Your task to perform on an android device: What's on my calendar tomorrow? Image 0: 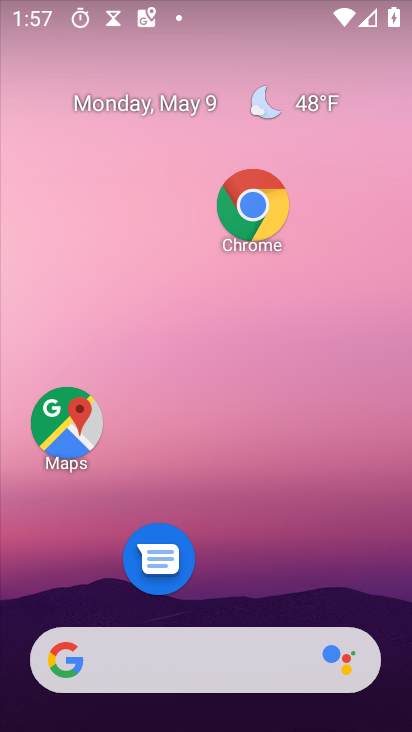
Step 0: drag from (272, 496) to (292, 285)
Your task to perform on an android device: What's on my calendar tomorrow? Image 1: 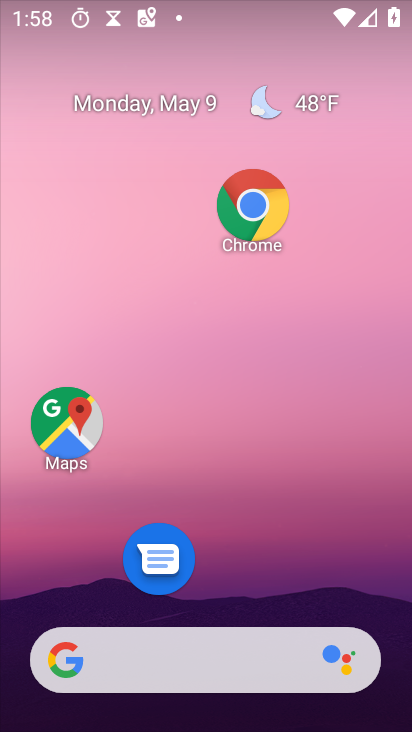
Step 1: drag from (280, 580) to (334, 182)
Your task to perform on an android device: What's on my calendar tomorrow? Image 2: 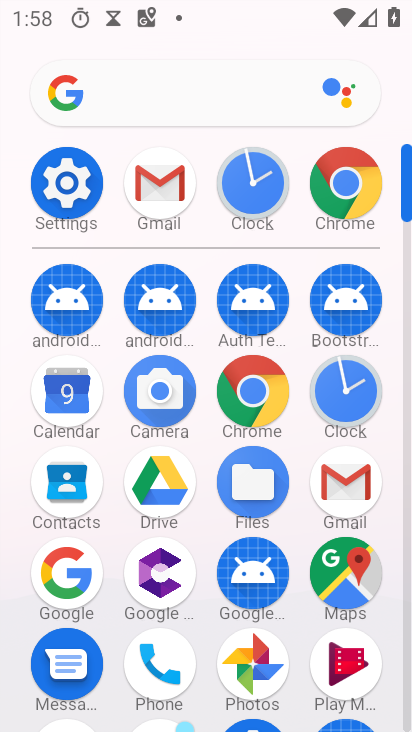
Step 2: click (63, 382)
Your task to perform on an android device: What's on my calendar tomorrow? Image 3: 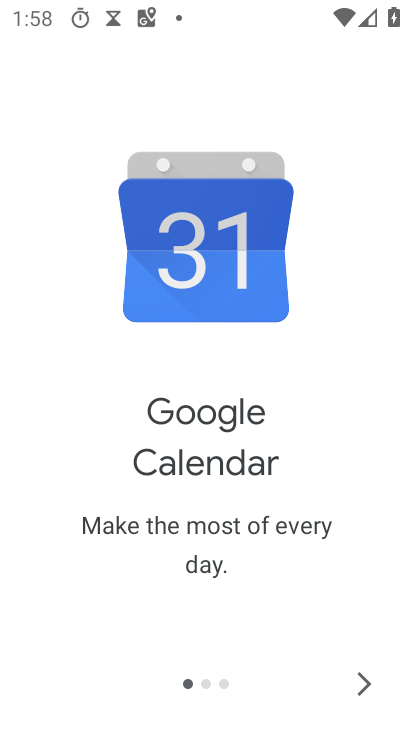
Step 3: click (359, 682)
Your task to perform on an android device: What's on my calendar tomorrow? Image 4: 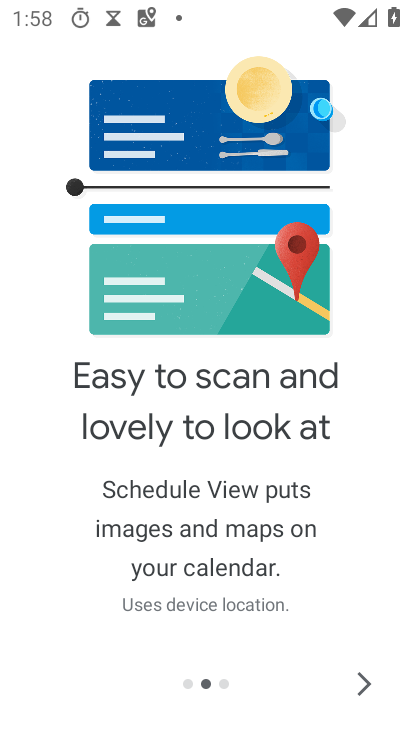
Step 4: click (358, 681)
Your task to perform on an android device: What's on my calendar tomorrow? Image 5: 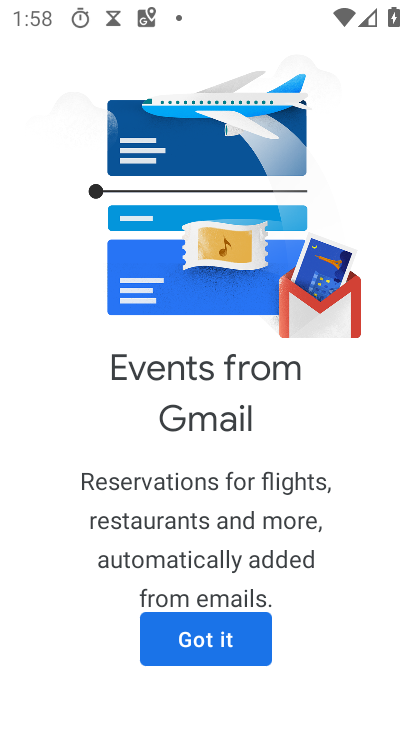
Step 5: click (213, 641)
Your task to perform on an android device: What's on my calendar tomorrow? Image 6: 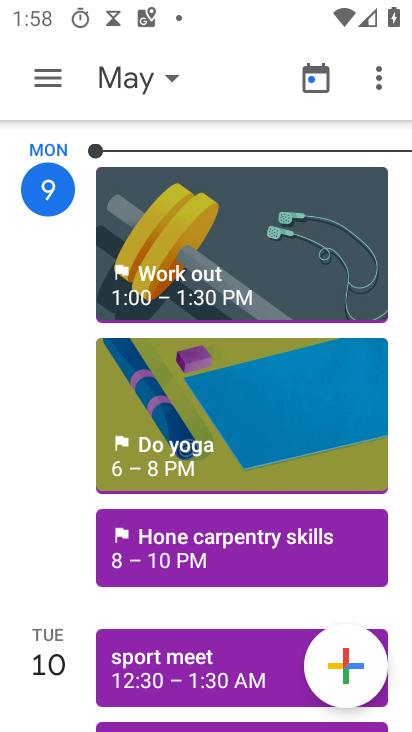
Step 6: click (46, 74)
Your task to perform on an android device: What's on my calendar tomorrow? Image 7: 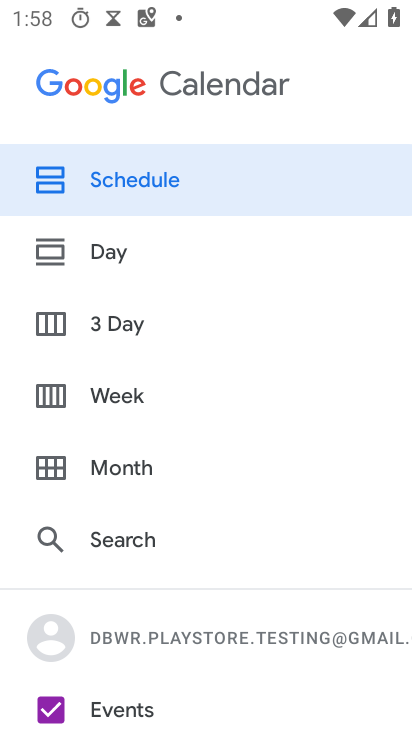
Step 7: click (125, 461)
Your task to perform on an android device: What's on my calendar tomorrow? Image 8: 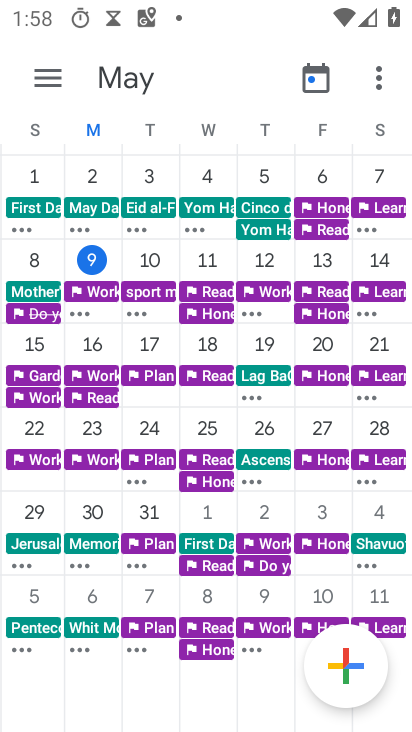
Step 8: click (140, 268)
Your task to perform on an android device: What's on my calendar tomorrow? Image 9: 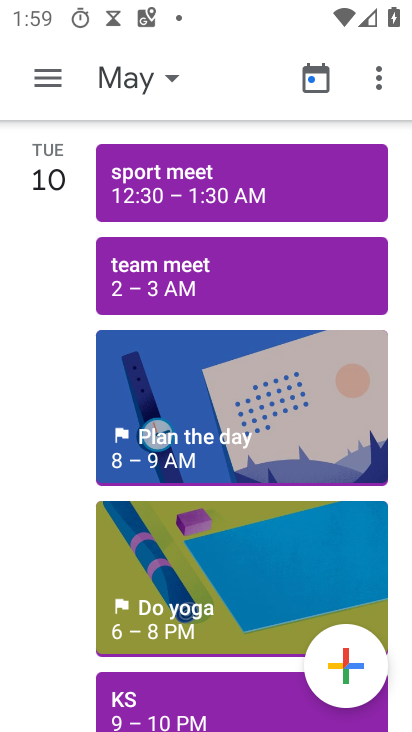
Step 9: task complete